Your task to perform on an android device: Open my contact list Image 0: 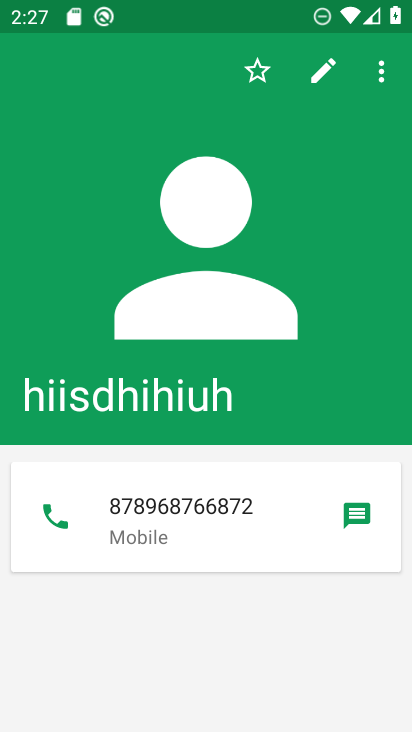
Step 0: press back button
Your task to perform on an android device: Open my contact list Image 1: 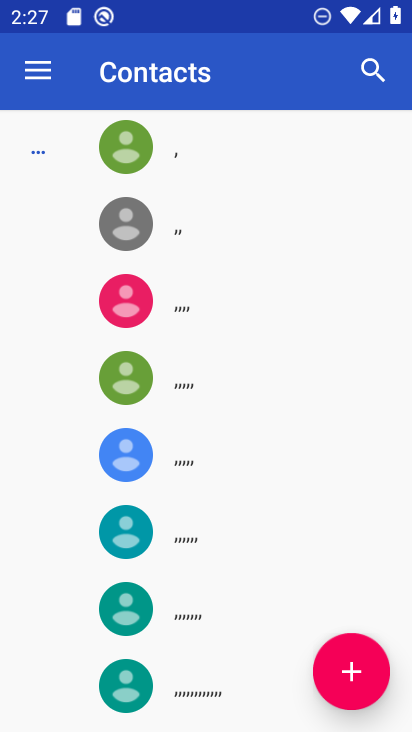
Step 1: task complete